Your task to perform on an android device: Open Maps and search for coffee Image 0: 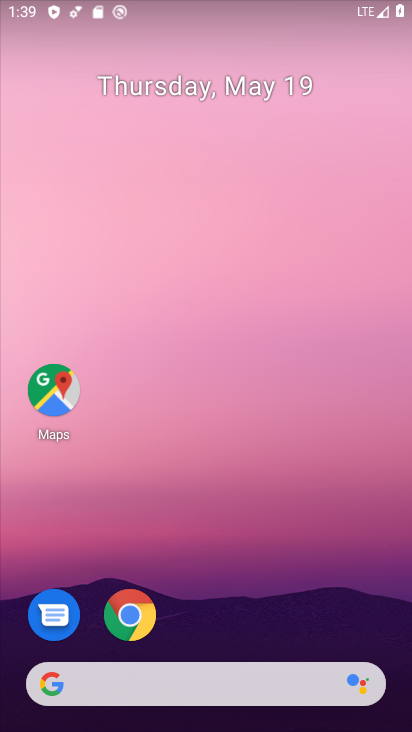
Step 0: drag from (236, 613) to (259, 219)
Your task to perform on an android device: Open Maps and search for coffee Image 1: 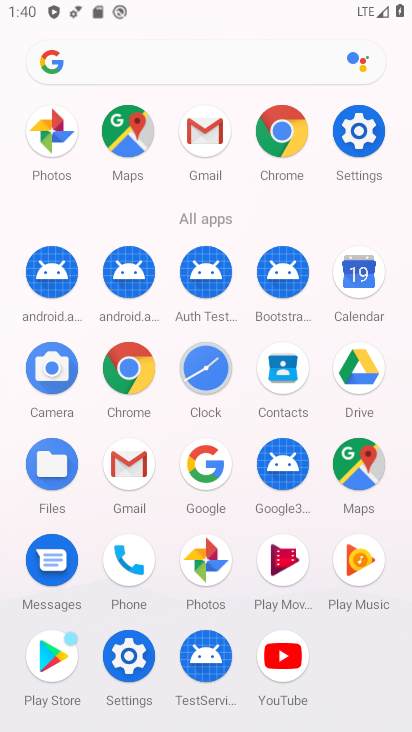
Step 1: click (352, 457)
Your task to perform on an android device: Open Maps and search for coffee Image 2: 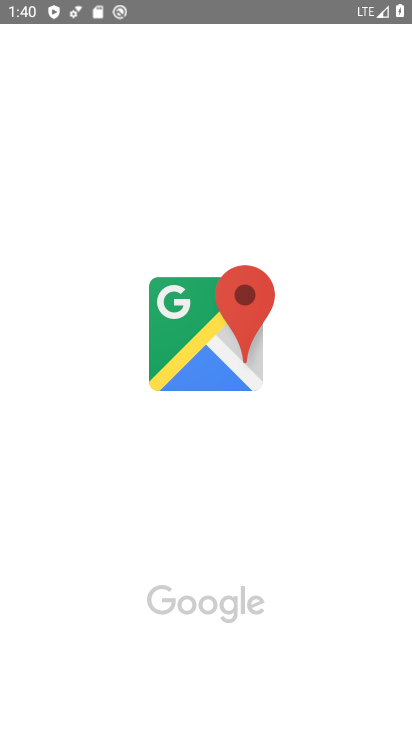
Step 2: drag from (292, 514) to (331, 384)
Your task to perform on an android device: Open Maps and search for coffee Image 3: 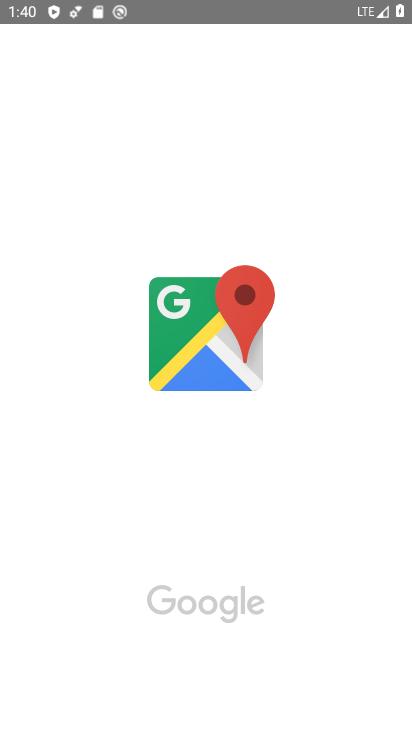
Step 3: drag from (336, 399) to (297, 425)
Your task to perform on an android device: Open Maps and search for coffee Image 4: 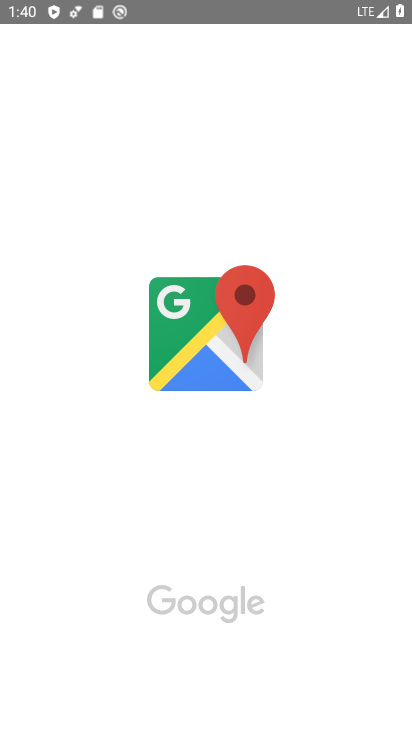
Step 4: click (276, 518)
Your task to perform on an android device: Open Maps and search for coffee Image 5: 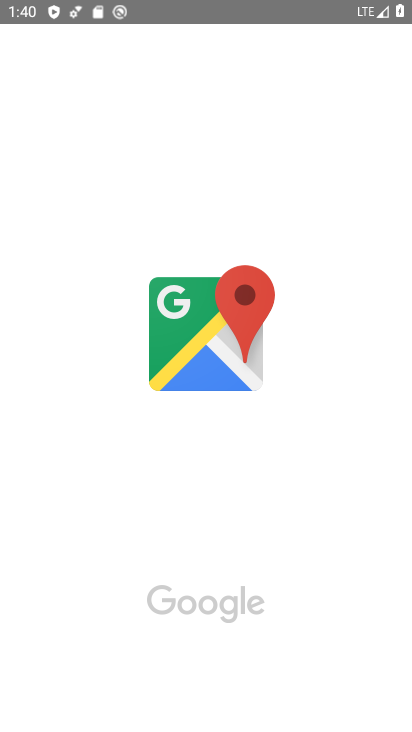
Step 5: task complete